Your task to perform on an android device: refresh tabs in the chrome app Image 0: 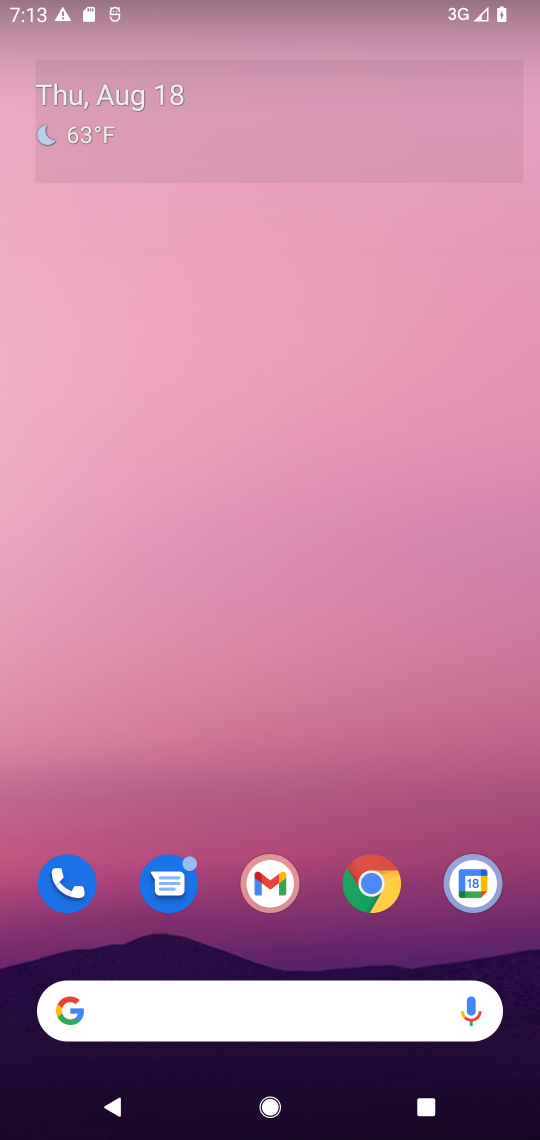
Step 0: click (382, 860)
Your task to perform on an android device: refresh tabs in the chrome app Image 1: 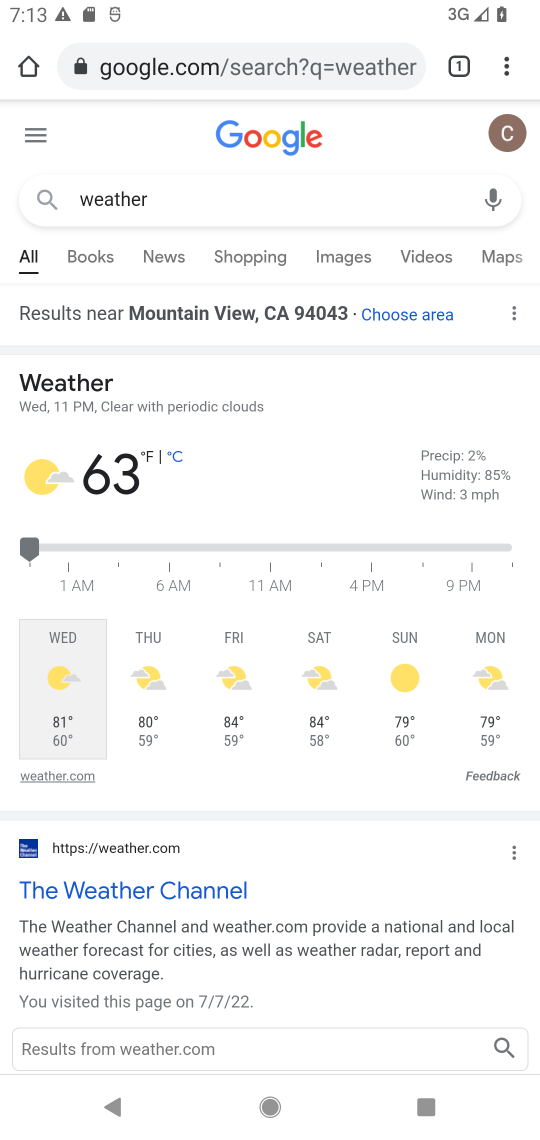
Step 1: click (512, 57)
Your task to perform on an android device: refresh tabs in the chrome app Image 2: 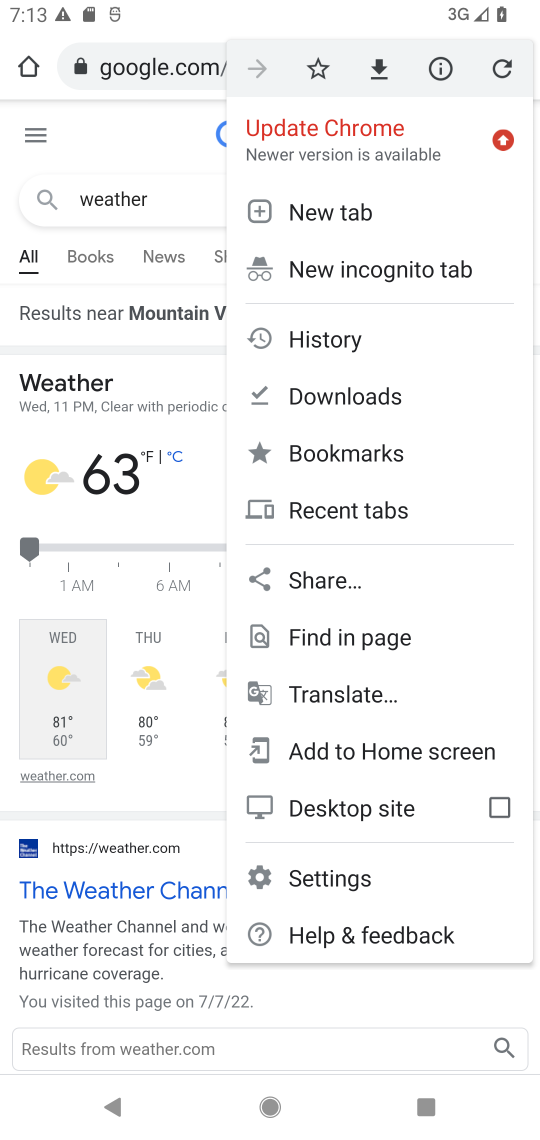
Step 2: click (503, 69)
Your task to perform on an android device: refresh tabs in the chrome app Image 3: 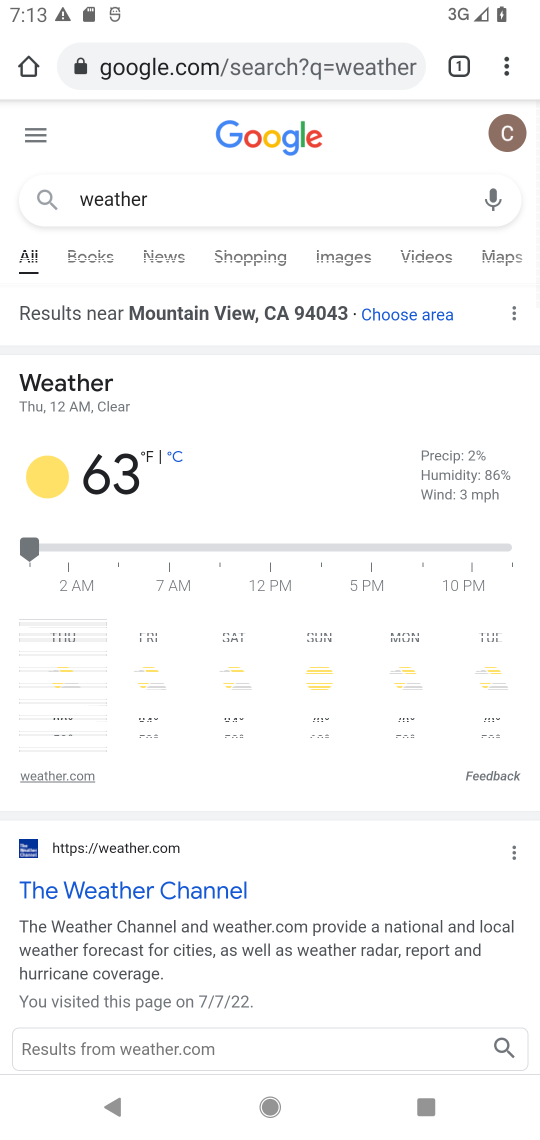
Step 3: task complete